Your task to perform on an android device: check battery use Image 0: 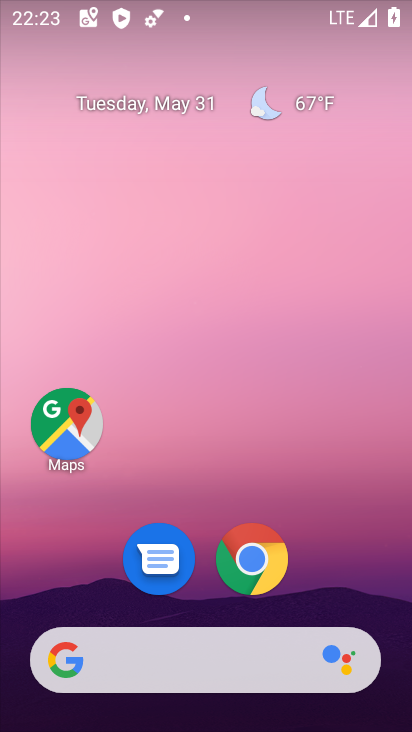
Step 0: drag from (326, 547) to (335, 88)
Your task to perform on an android device: check battery use Image 1: 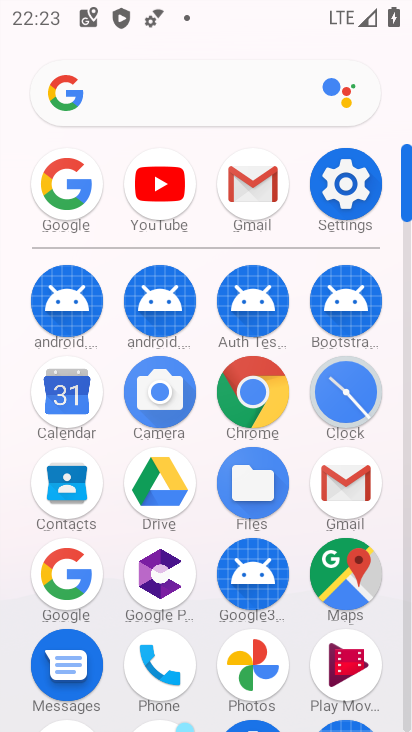
Step 1: click (351, 175)
Your task to perform on an android device: check battery use Image 2: 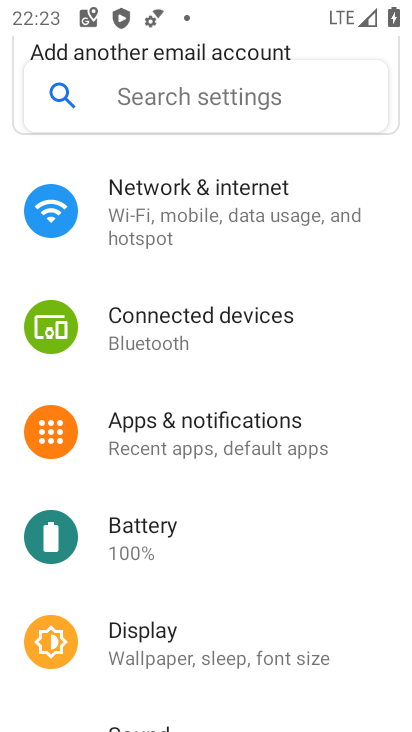
Step 2: drag from (254, 617) to (235, 447)
Your task to perform on an android device: check battery use Image 3: 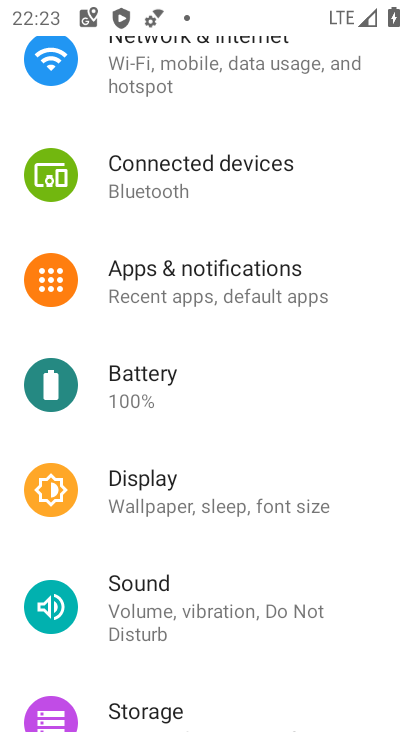
Step 3: click (154, 393)
Your task to perform on an android device: check battery use Image 4: 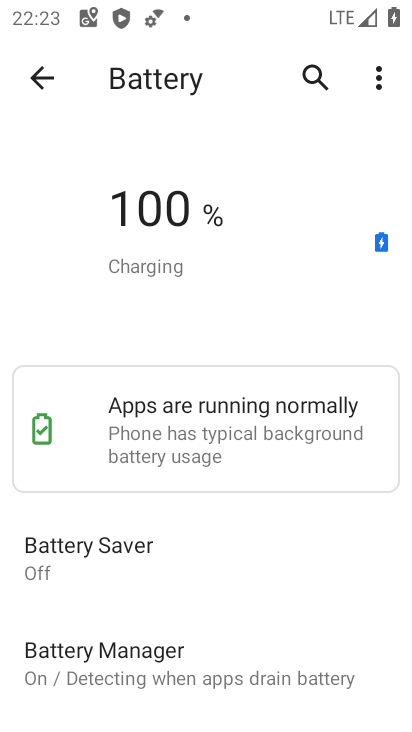
Step 4: click (361, 77)
Your task to perform on an android device: check battery use Image 5: 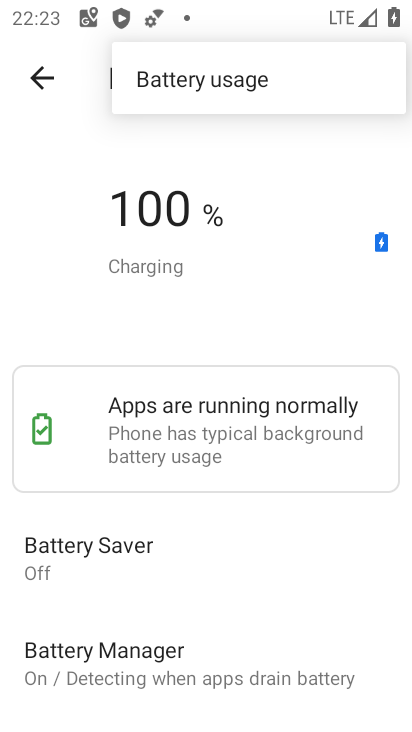
Step 5: click (247, 71)
Your task to perform on an android device: check battery use Image 6: 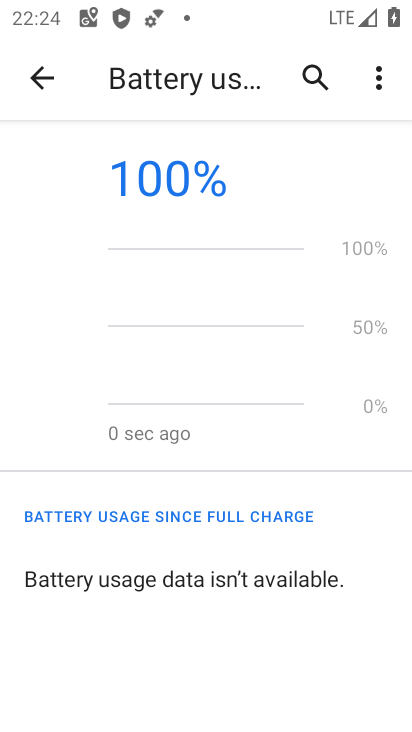
Step 6: task complete